Your task to perform on an android device: Search for "logitech g903" on costco.com, select the first entry, and add it to the cart. Image 0: 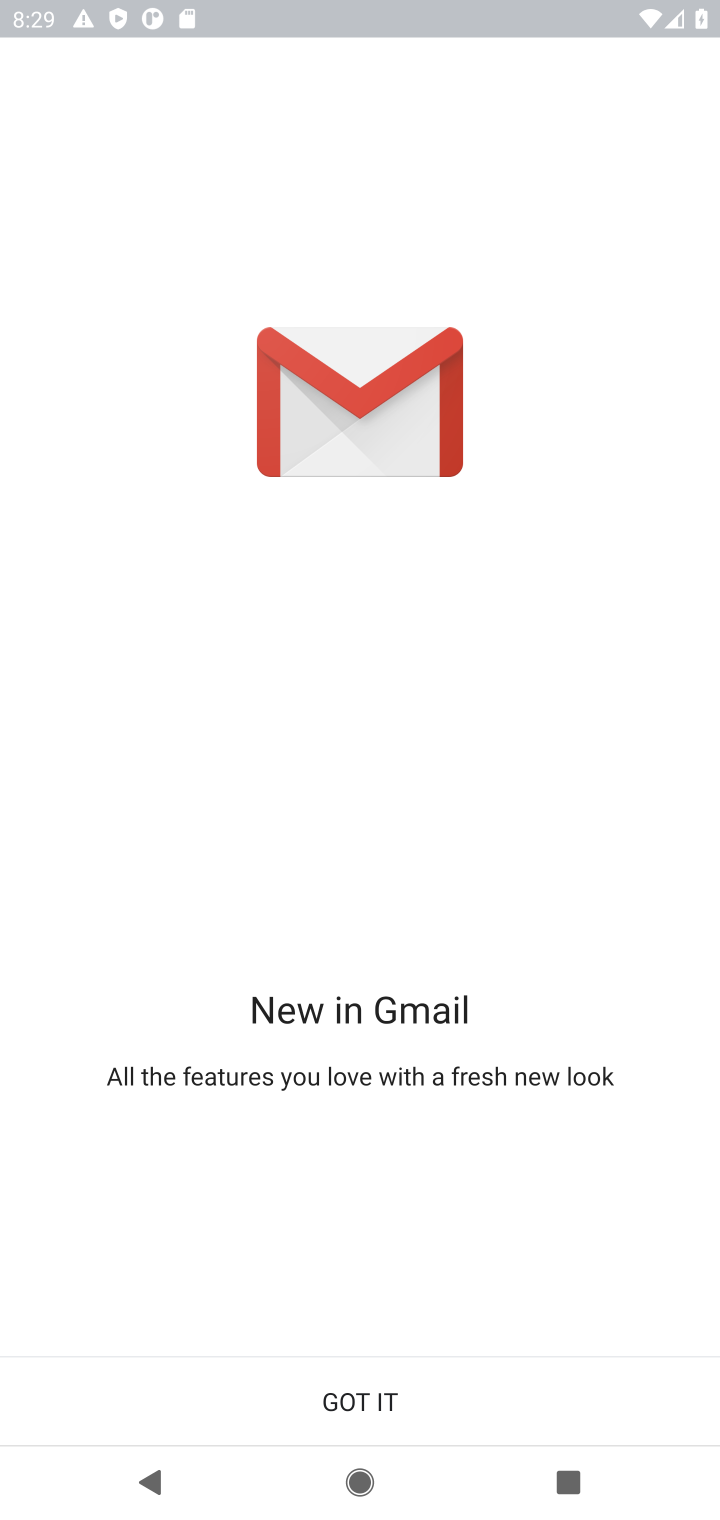
Step 0: press home button
Your task to perform on an android device: Search for "logitech g903" on costco.com, select the first entry, and add it to the cart. Image 1: 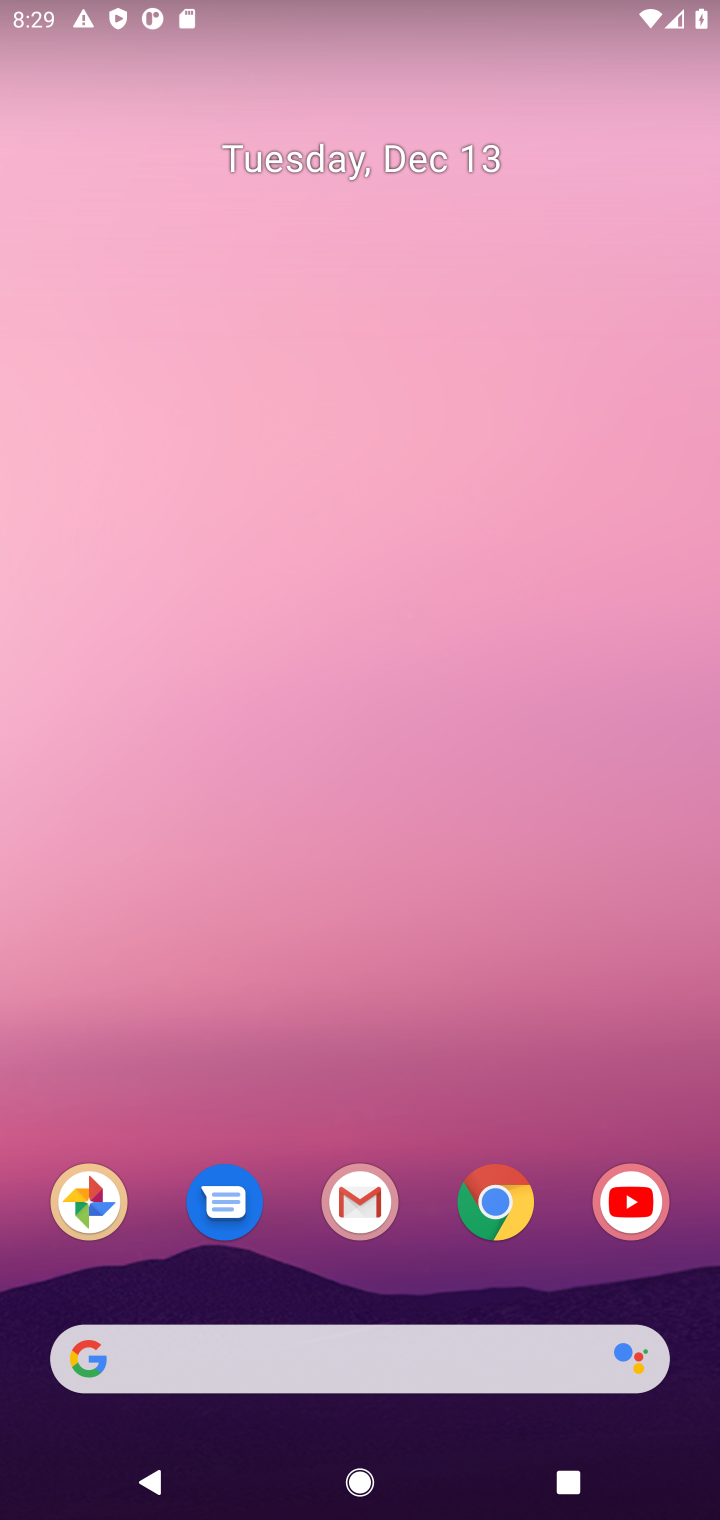
Step 1: click (482, 1210)
Your task to perform on an android device: Search for "logitech g903" on costco.com, select the first entry, and add it to the cart. Image 2: 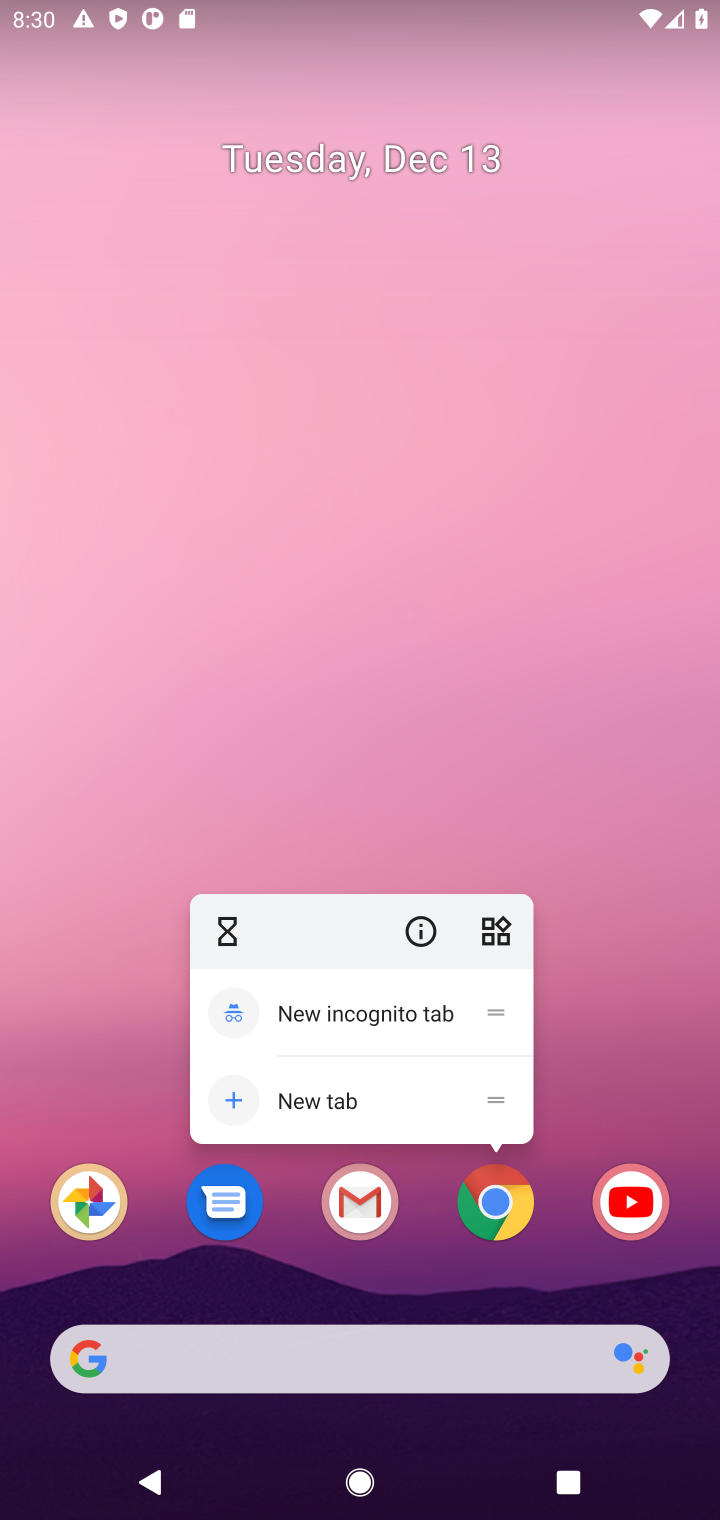
Step 2: click (482, 1210)
Your task to perform on an android device: Search for "logitech g903" on costco.com, select the first entry, and add it to the cart. Image 3: 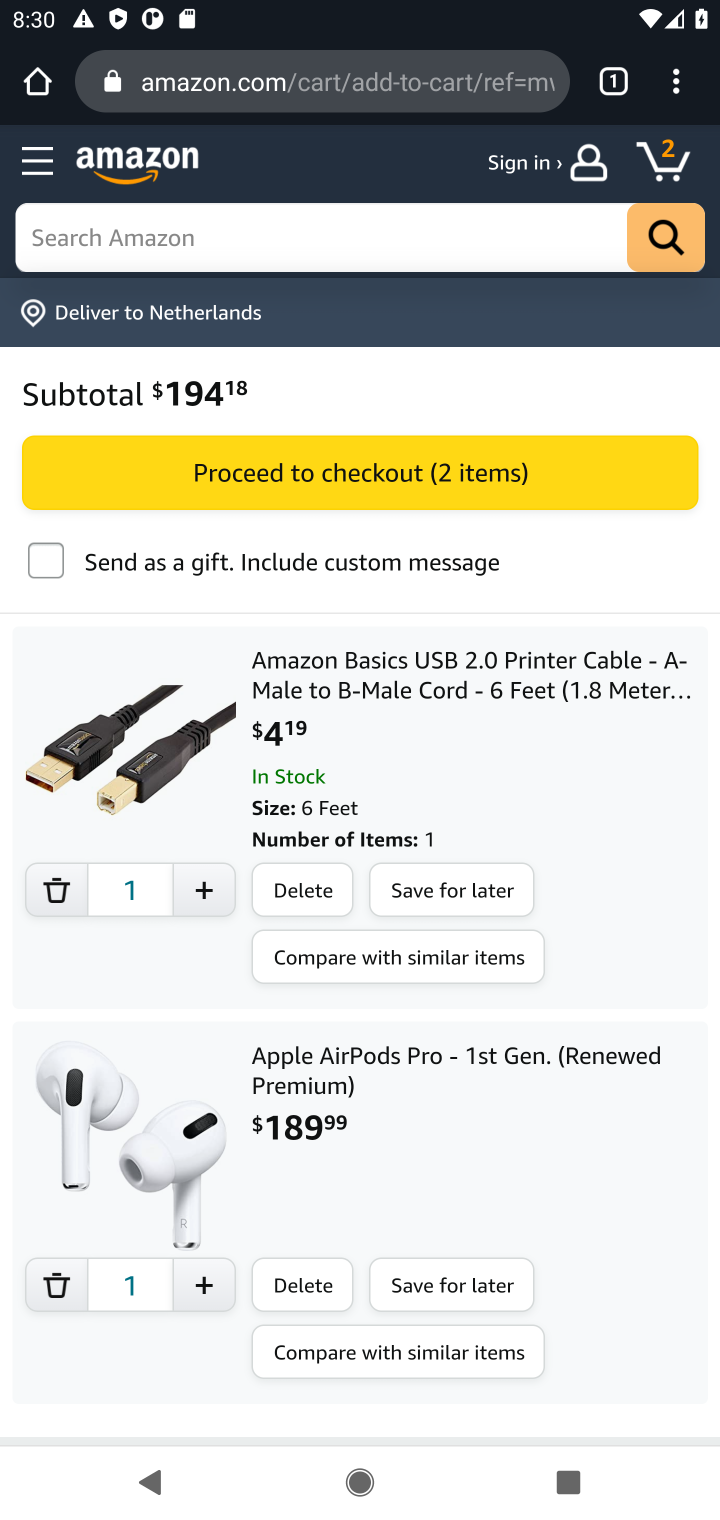
Step 3: click (358, 93)
Your task to perform on an android device: Search for "logitech g903" on costco.com, select the first entry, and add it to the cart. Image 4: 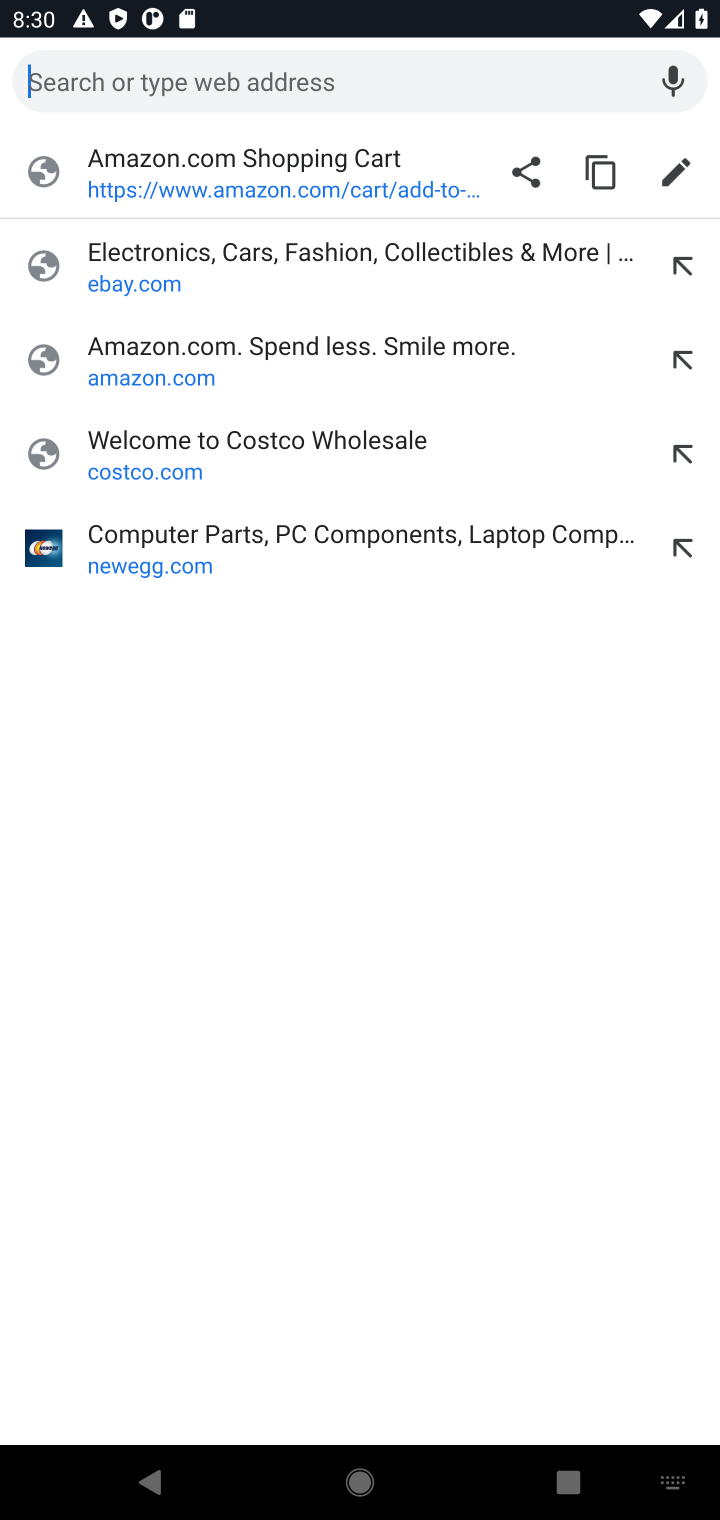
Step 4: click (156, 462)
Your task to perform on an android device: Search for "logitech g903" on costco.com, select the first entry, and add it to the cart. Image 5: 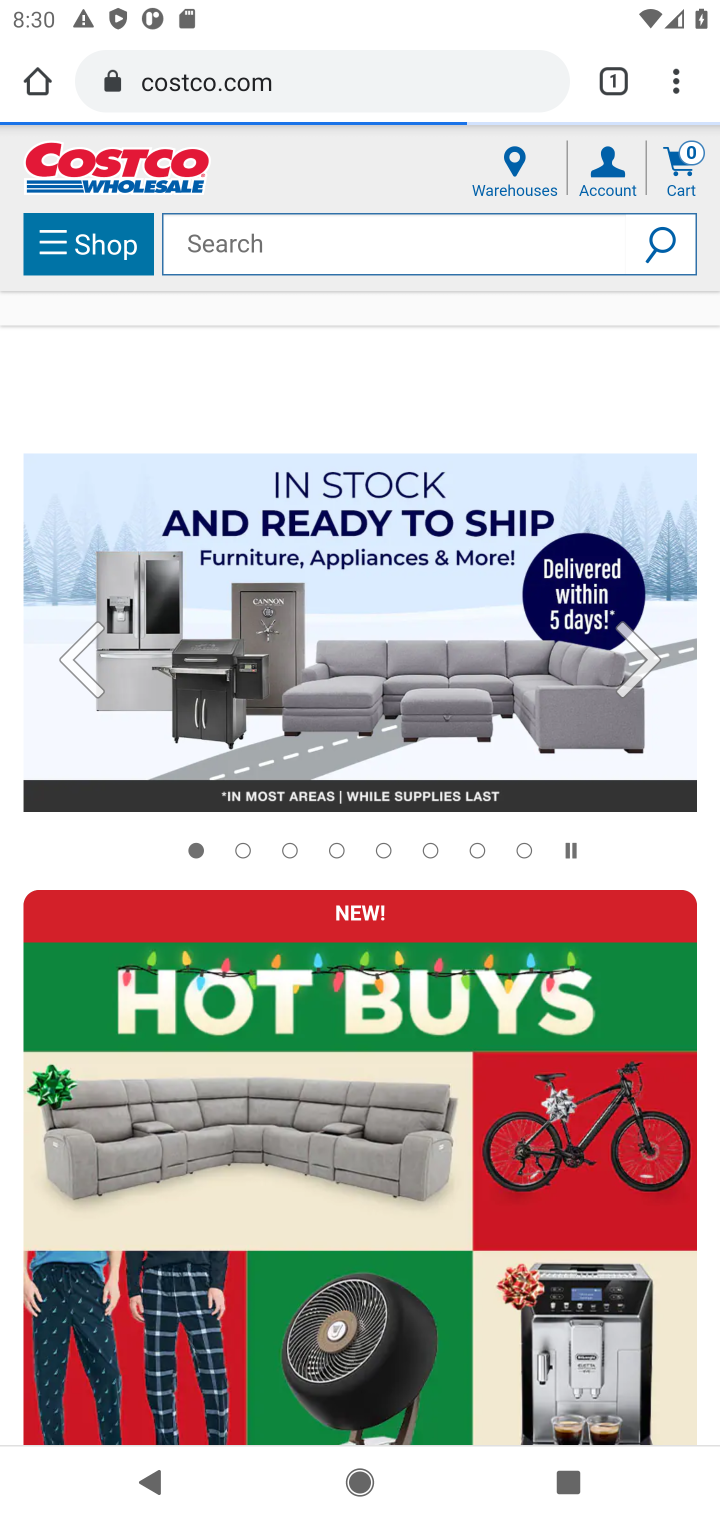
Step 5: click (413, 237)
Your task to perform on an android device: Search for "logitech g903" on costco.com, select the first entry, and add it to the cart. Image 6: 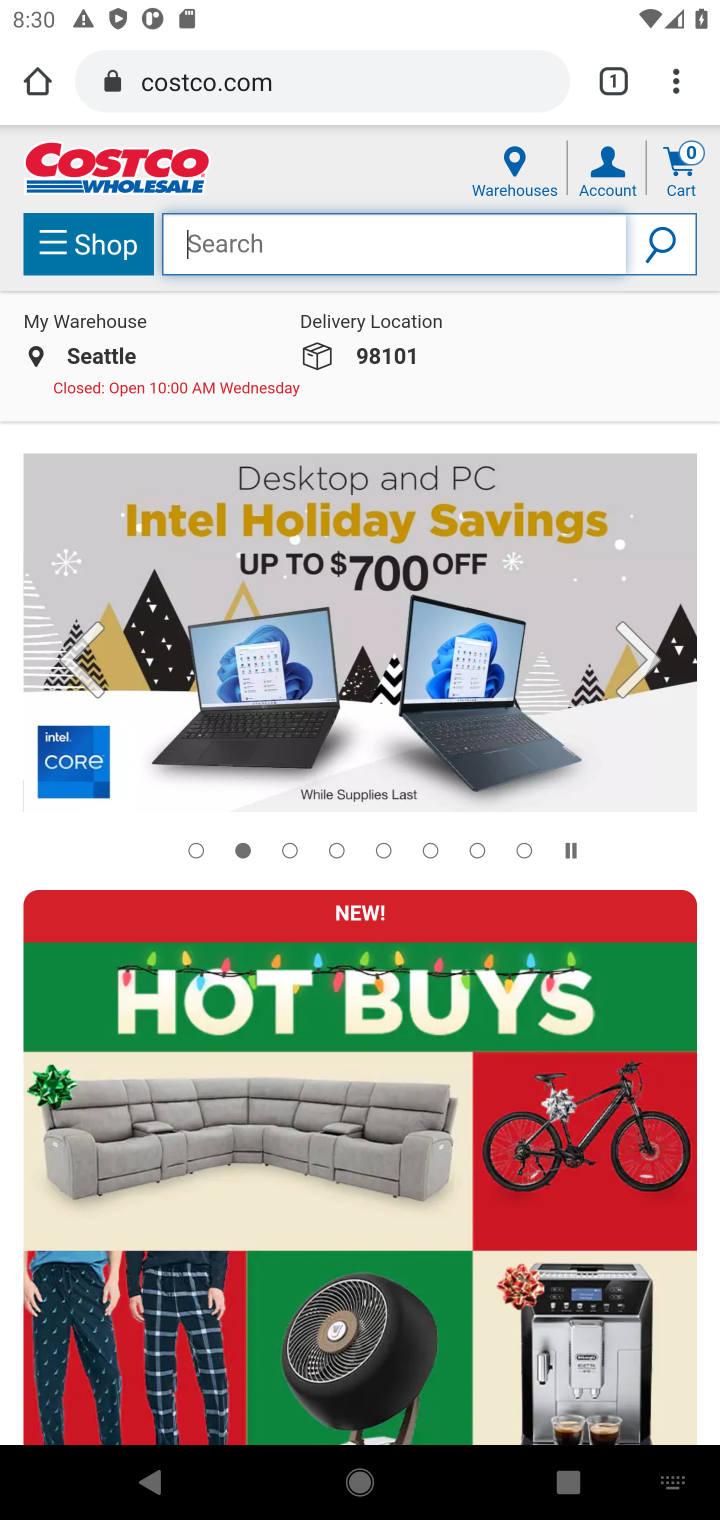
Step 6: type "logitech g903"
Your task to perform on an android device: Search for "logitech g903" on costco.com, select the first entry, and add it to the cart. Image 7: 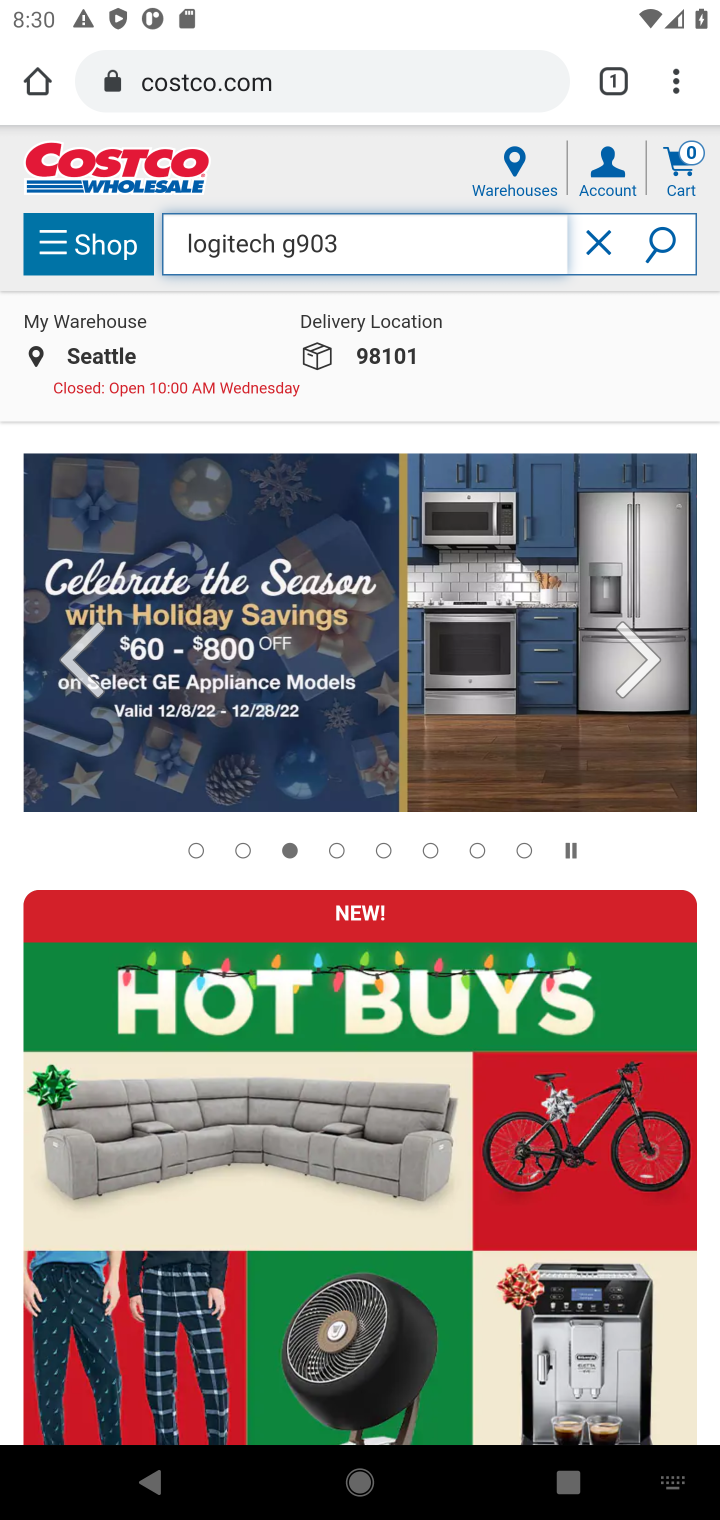
Step 7: click (663, 245)
Your task to perform on an android device: Search for "logitech g903" on costco.com, select the first entry, and add it to the cart. Image 8: 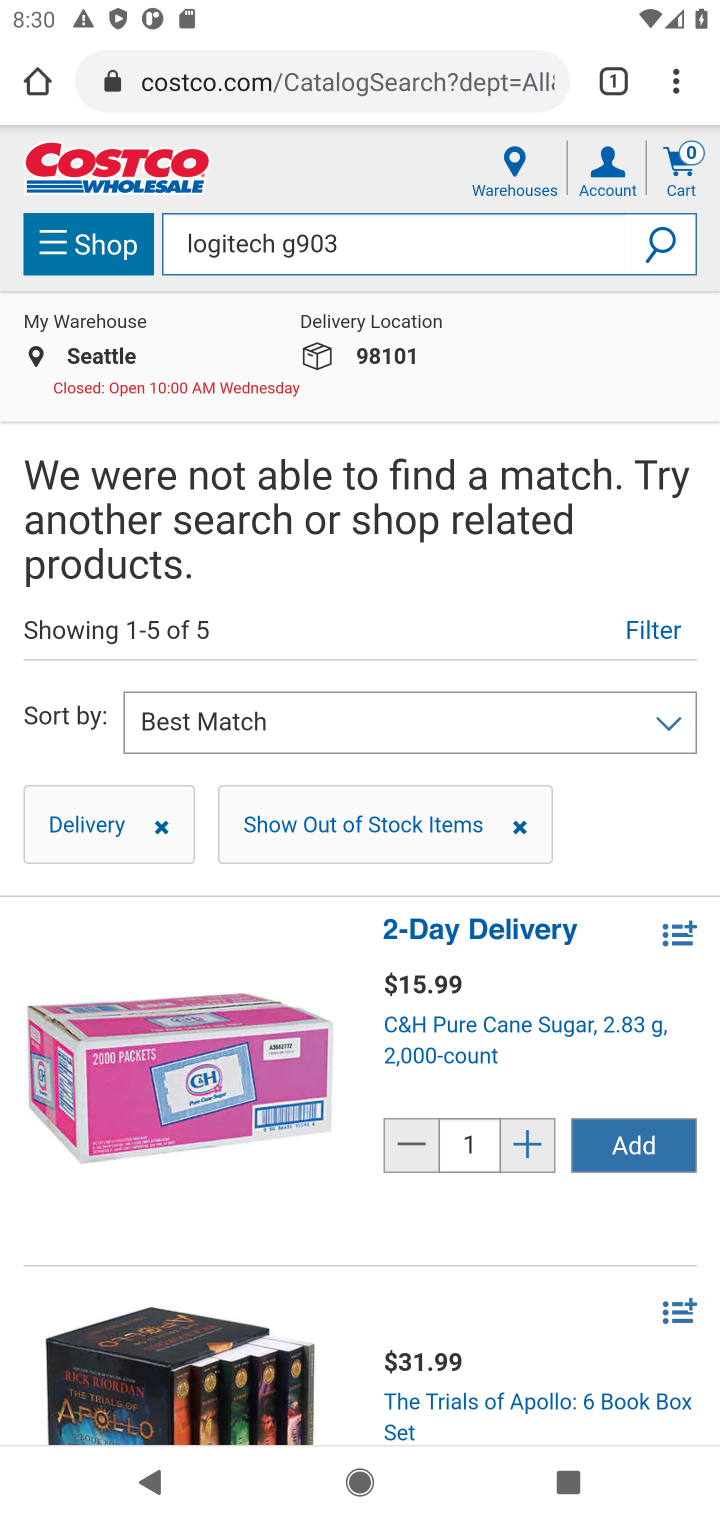
Step 8: task complete